Your task to perform on an android device: turn on wifi Image 0: 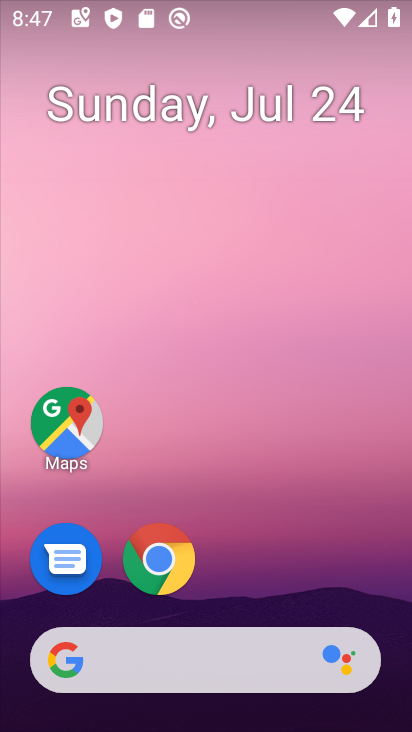
Step 0: drag from (177, 20) to (213, 603)
Your task to perform on an android device: turn on wifi Image 1: 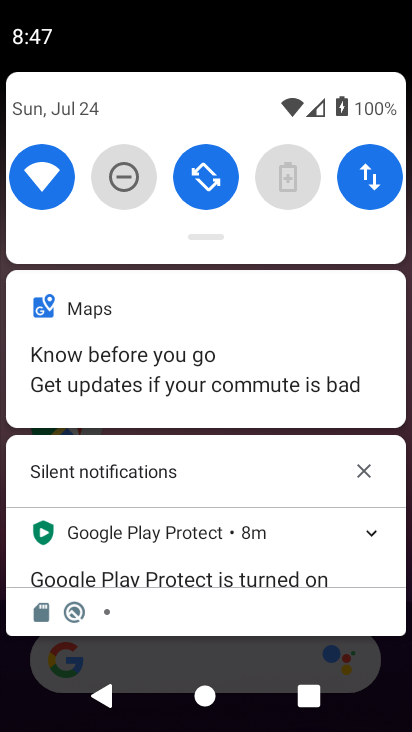
Step 1: task complete